Your task to perform on an android device: When is my next appointment? Image 0: 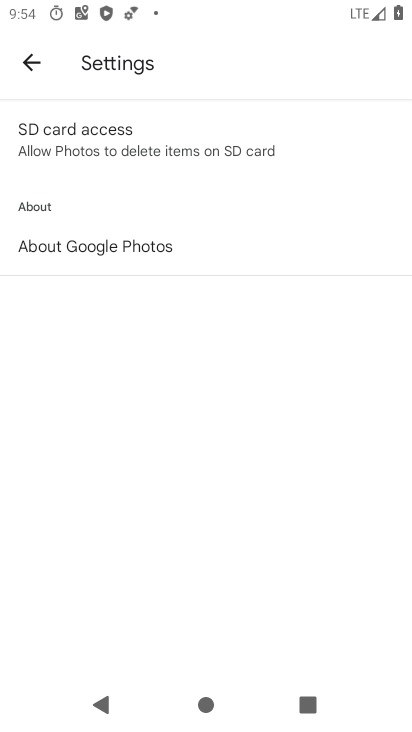
Step 0: task complete